Your task to perform on an android device: Open the web browser Image 0: 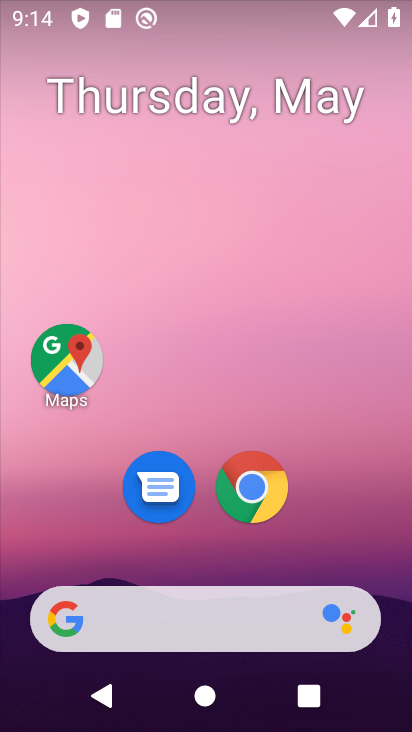
Step 0: click (265, 498)
Your task to perform on an android device: Open the web browser Image 1: 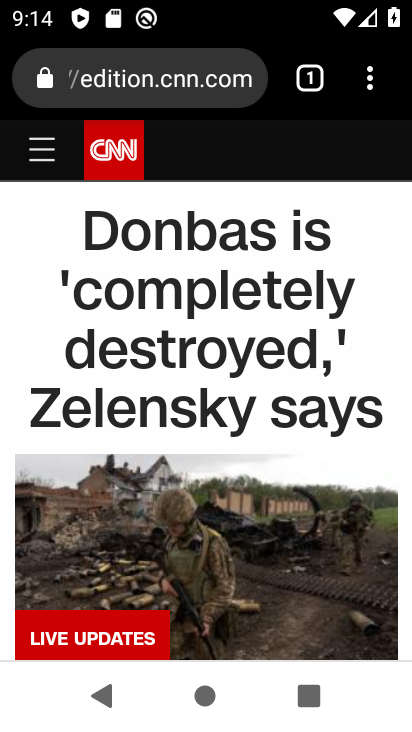
Step 1: task complete